Your task to perform on an android device: Go to wifi settings Image 0: 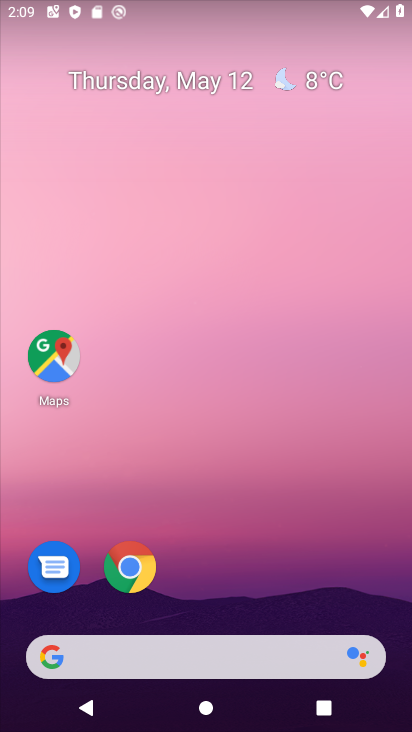
Step 0: drag from (231, 587) to (253, 152)
Your task to perform on an android device: Go to wifi settings Image 1: 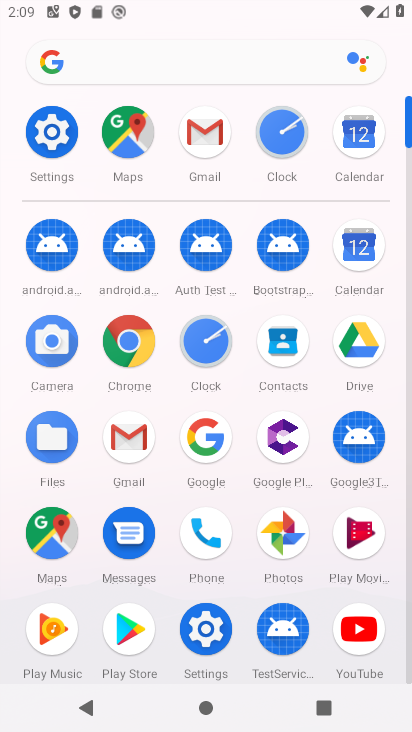
Step 1: click (44, 130)
Your task to perform on an android device: Go to wifi settings Image 2: 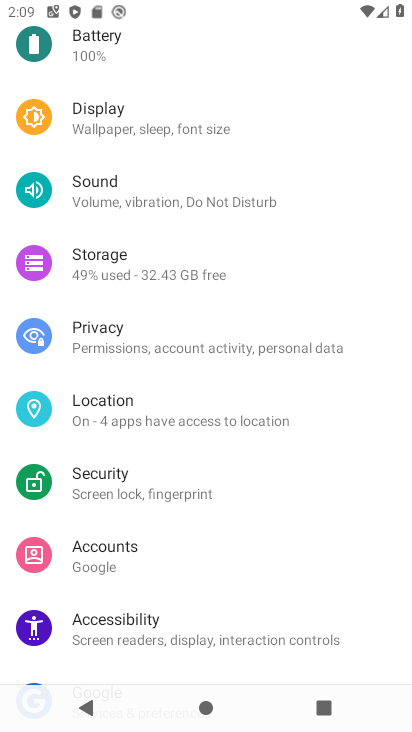
Step 2: drag from (153, 87) to (168, 718)
Your task to perform on an android device: Go to wifi settings Image 3: 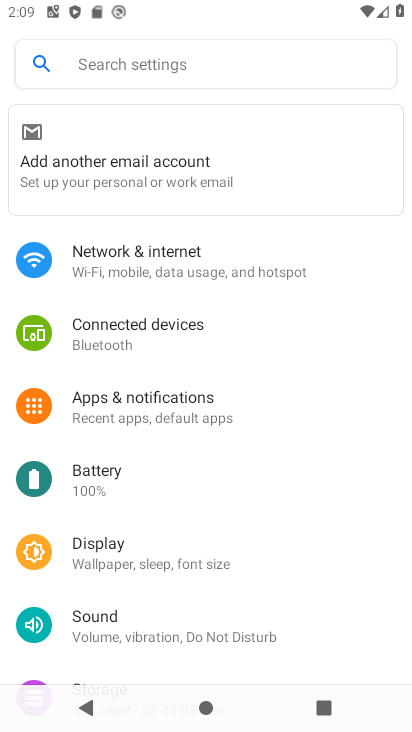
Step 3: click (123, 265)
Your task to perform on an android device: Go to wifi settings Image 4: 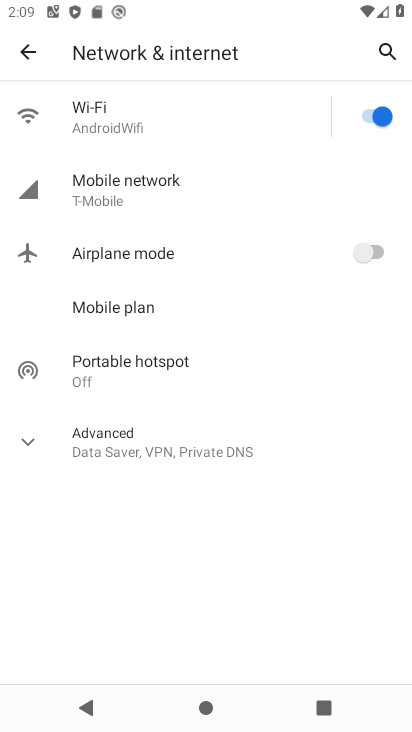
Step 4: click (136, 109)
Your task to perform on an android device: Go to wifi settings Image 5: 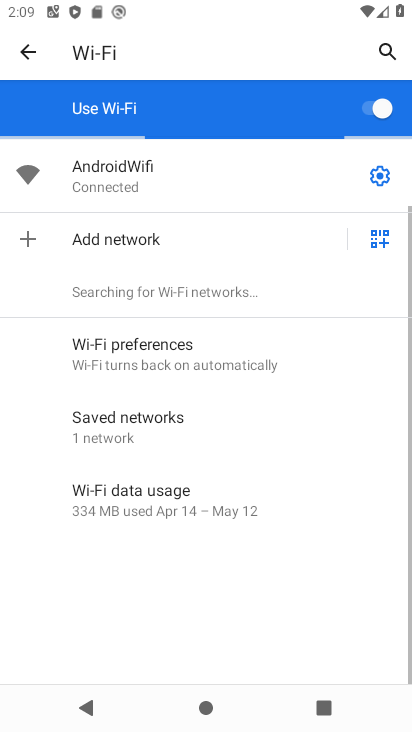
Step 5: task complete